Your task to perform on an android device: Open notification settings Image 0: 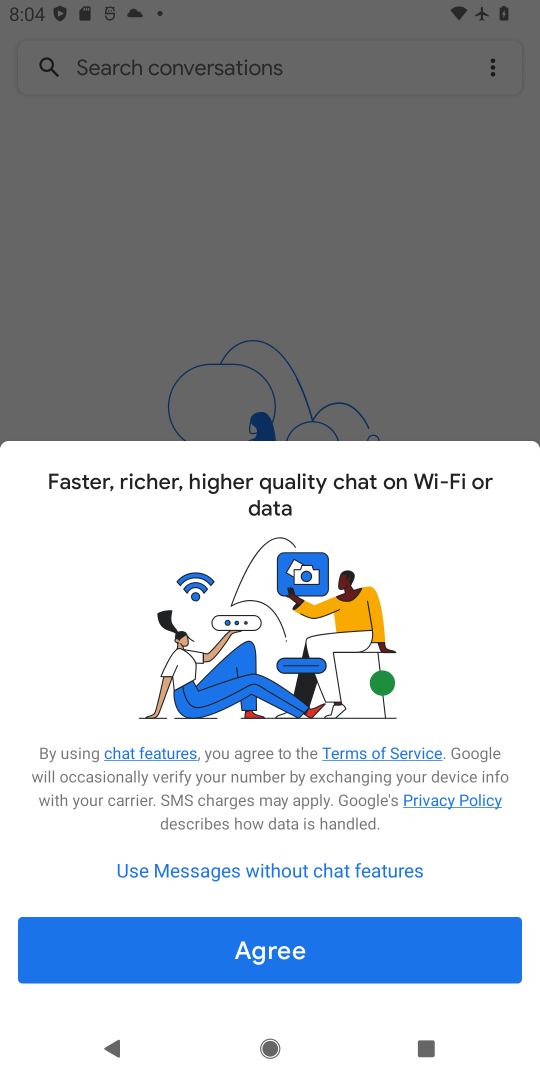
Step 0: press home button
Your task to perform on an android device: Open notification settings Image 1: 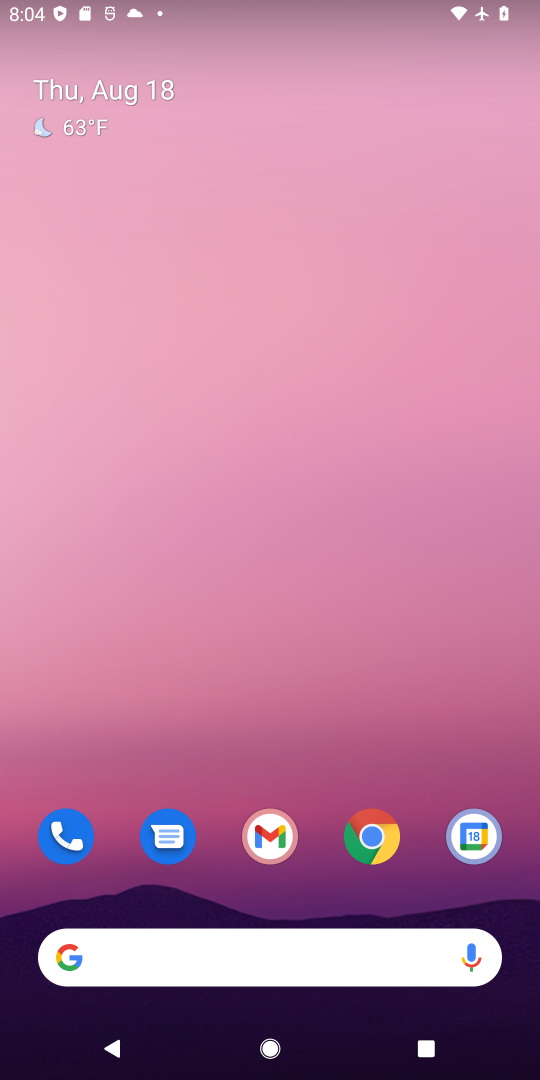
Step 1: drag from (220, 727) to (308, 47)
Your task to perform on an android device: Open notification settings Image 2: 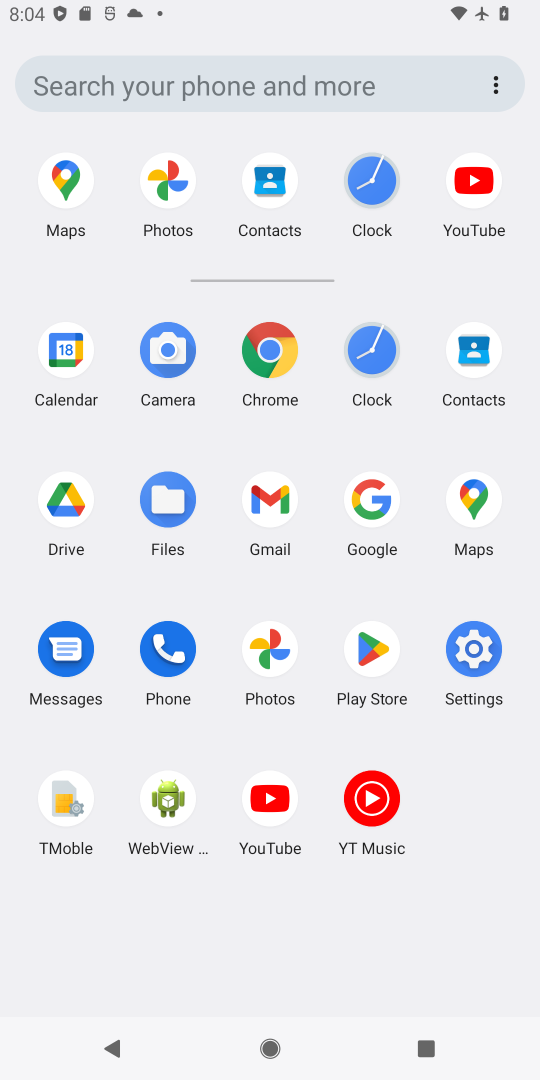
Step 2: click (466, 654)
Your task to perform on an android device: Open notification settings Image 3: 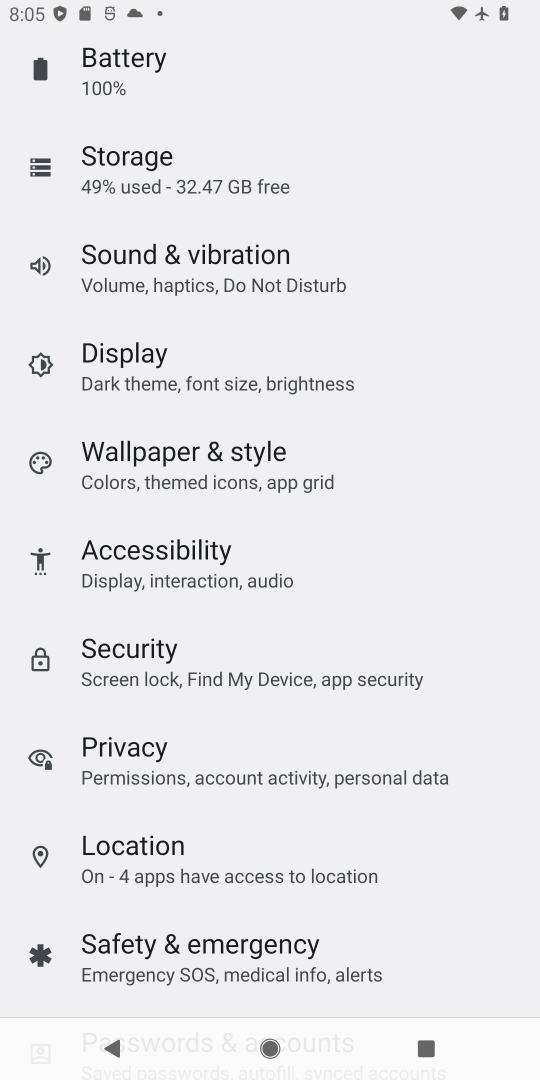
Step 3: drag from (317, 192) to (313, 821)
Your task to perform on an android device: Open notification settings Image 4: 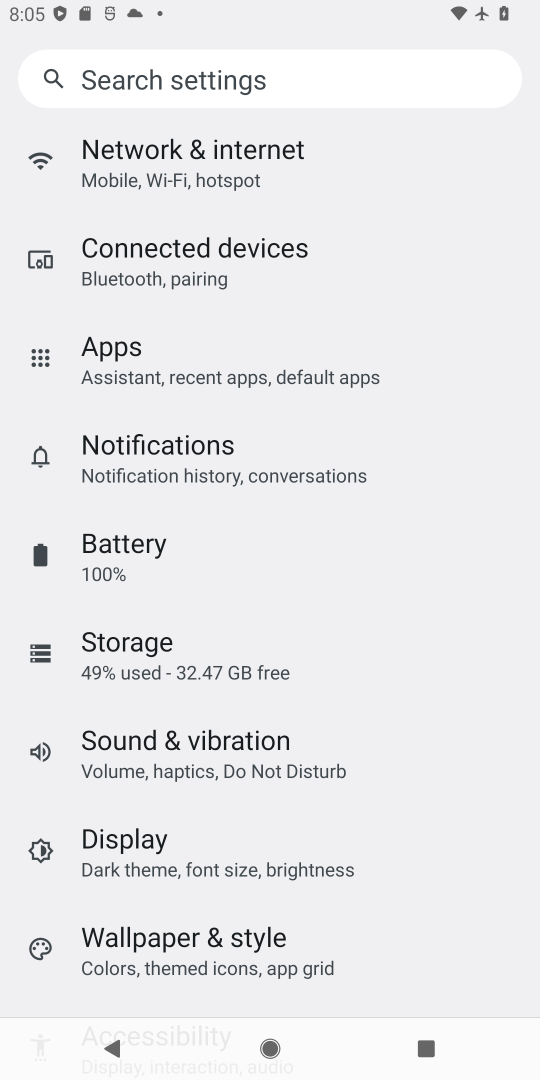
Step 4: click (205, 451)
Your task to perform on an android device: Open notification settings Image 5: 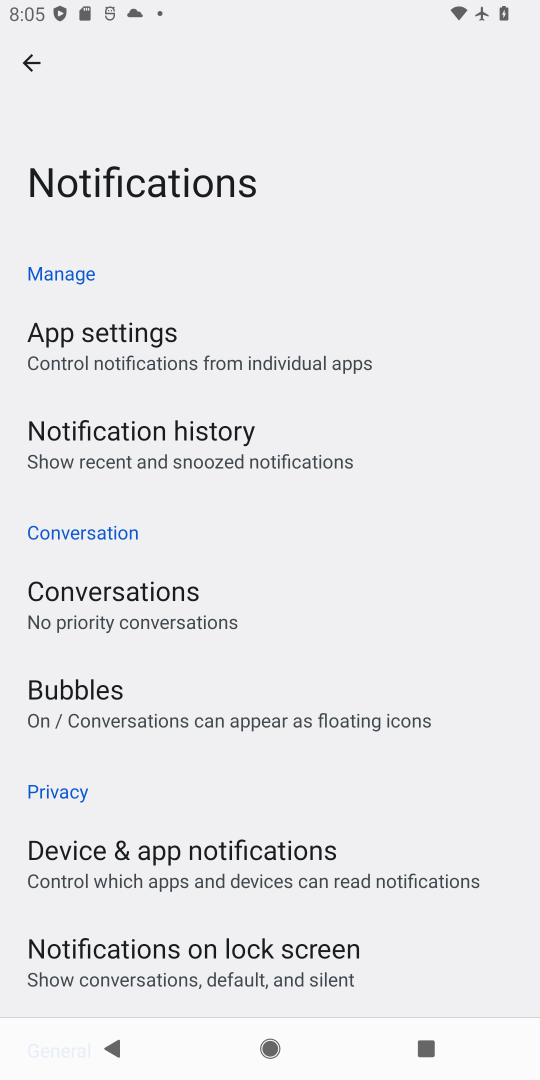
Step 5: task complete